Your task to perform on an android device: turn on translation in the chrome app Image 0: 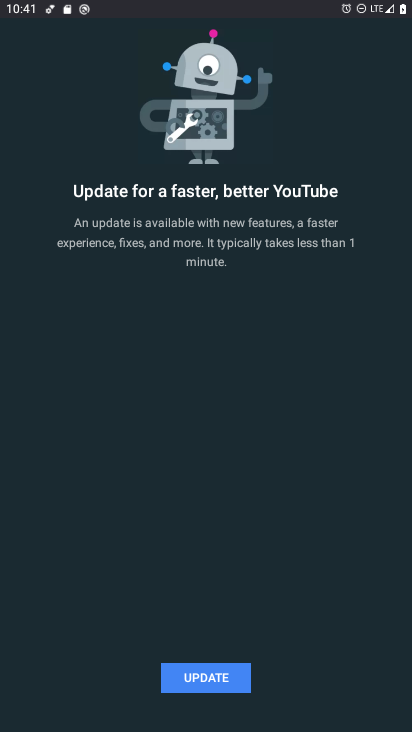
Step 0: press home button
Your task to perform on an android device: turn on translation in the chrome app Image 1: 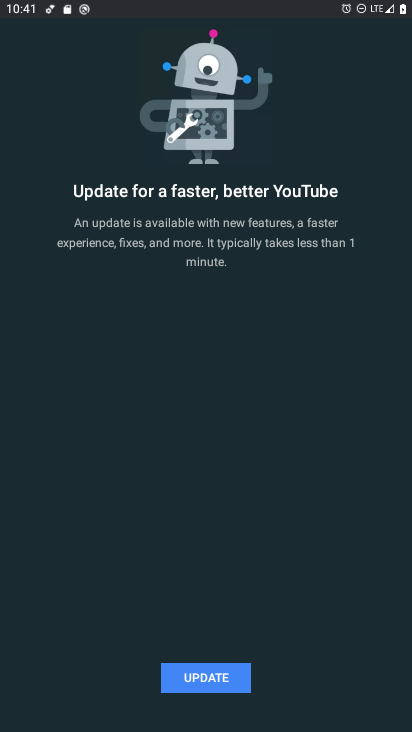
Step 1: press home button
Your task to perform on an android device: turn on translation in the chrome app Image 2: 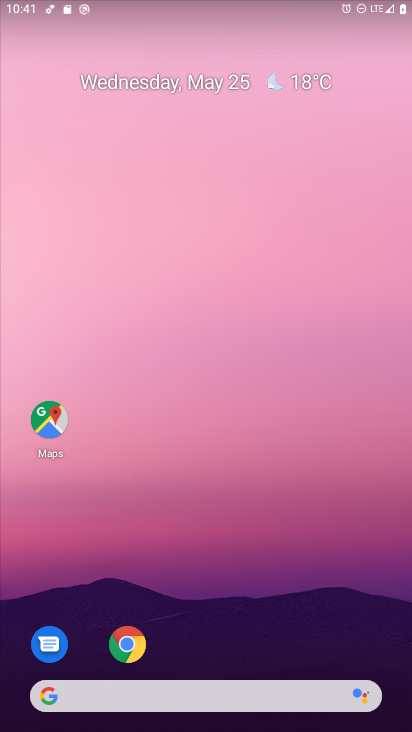
Step 2: click (123, 641)
Your task to perform on an android device: turn on translation in the chrome app Image 3: 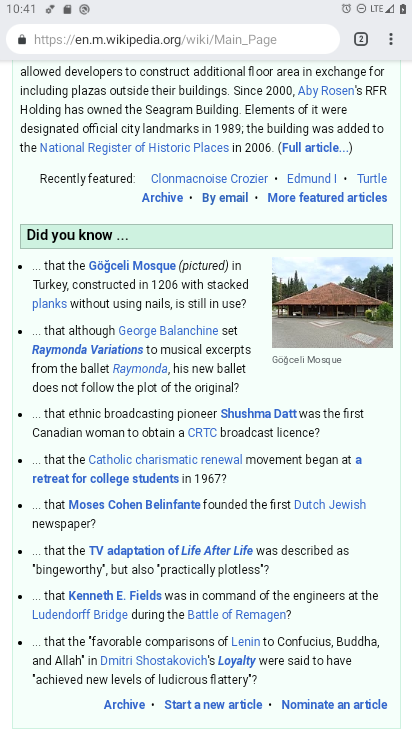
Step 3: click (392, 37)
Your task to perform on an android device: turn on translation in the chrome app Image 4: 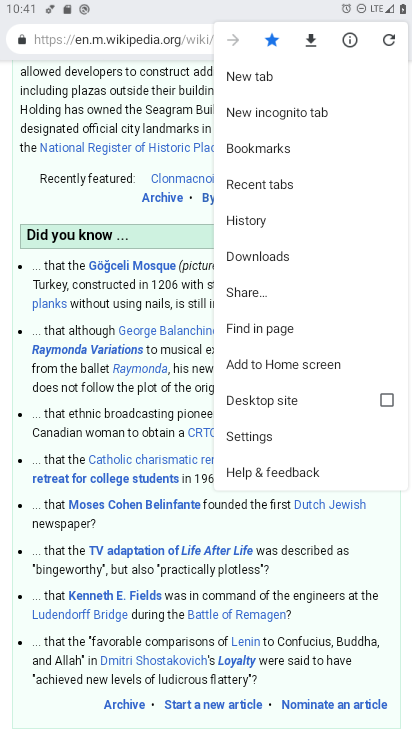
Step 4: click (284, 429)
Your task to perform on an android device: turn on translation in the chrome app Image 5: 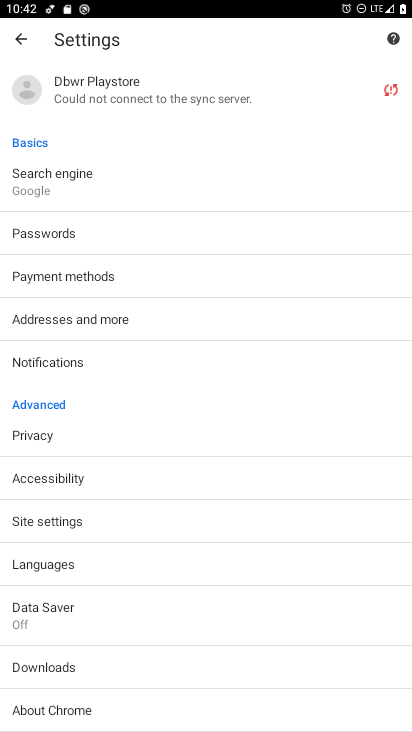
Step 5: click (106, 571)
Your task to perform on an android device: turn on translation in the chrome app Image 6: 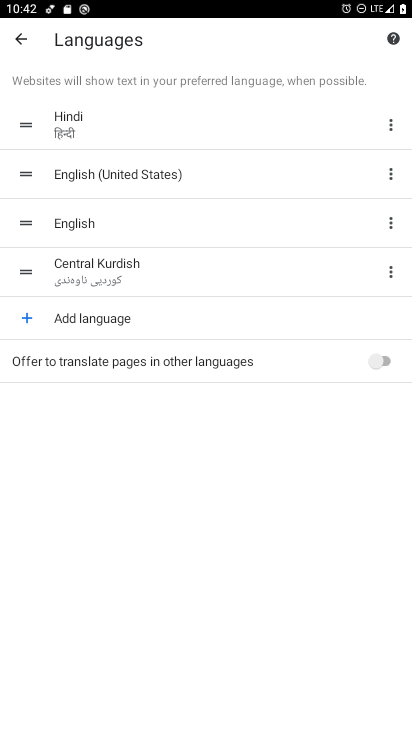
Step 6: click (381, 353)
Your task to perform on an android device: turn on translation in the chrome app Image 7: 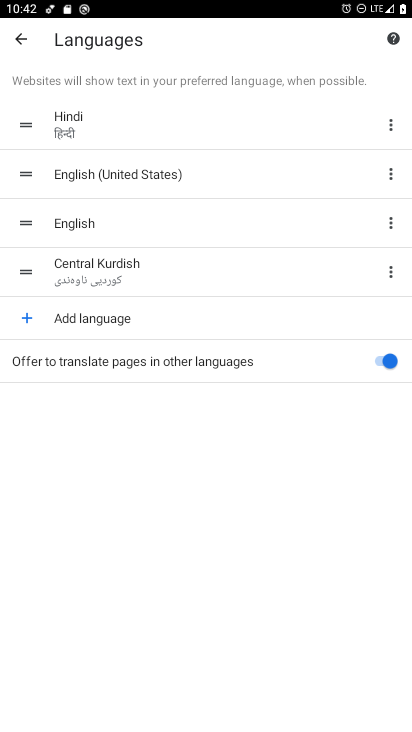
Step 7: task complete